Your task to perform on an android device: change the upload size in google photos Image 0: 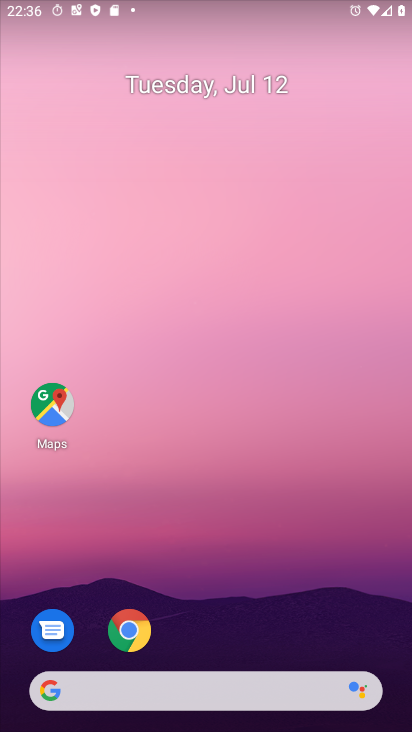
Step 0: drag from (228, 553) to (278, 10)
Your task to perform on an android device: change the upload size in google photos Image 1: 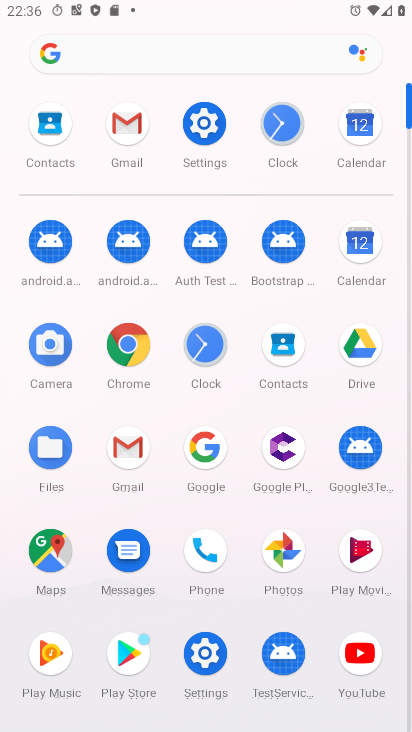
Step 1: click (282, 555)
Your task to perform on an android device: change the upload size in google photos Image 2: 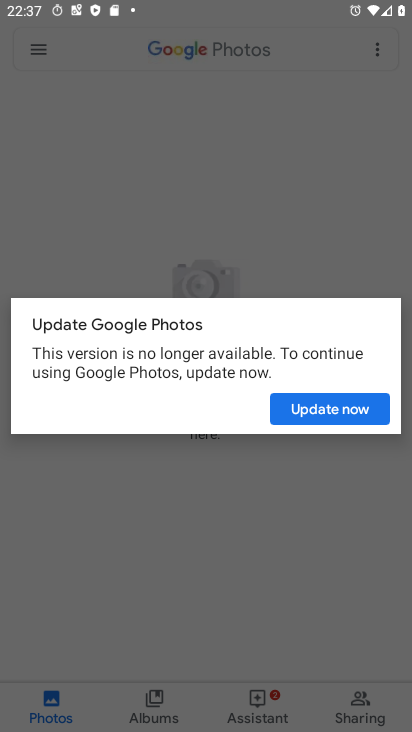
Step 2: click (302, 417)
Your task to perform on an android device: change the upload size in google photos Image 3: 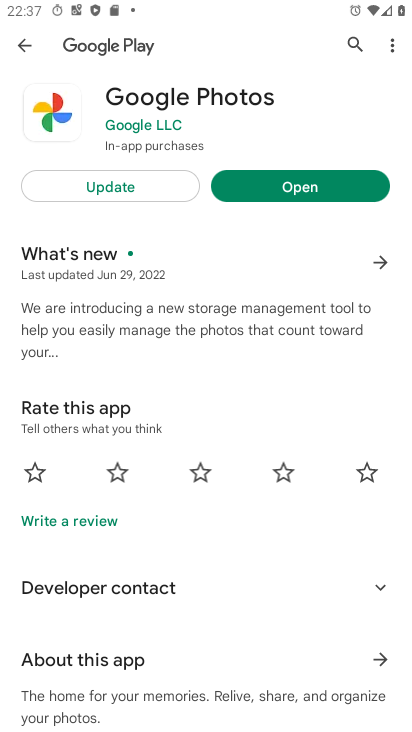
Step 3: click (292, 182)
Your task to perform on an android device: change the upload size in google photos Image 4: 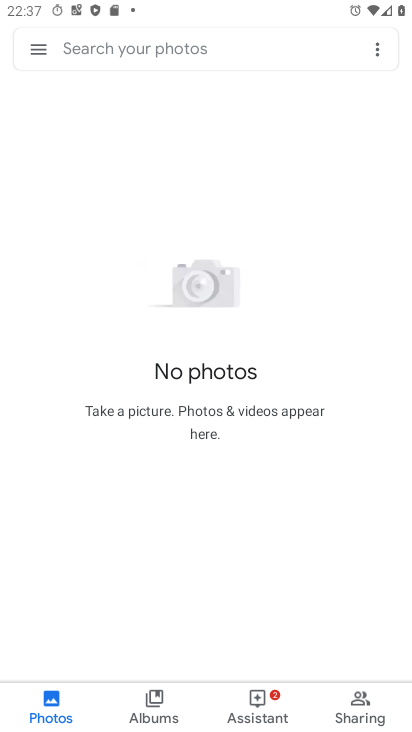
Step 4: click (43, 45)
Your task to perform on an android device: change the upload size in google photos Image 5: 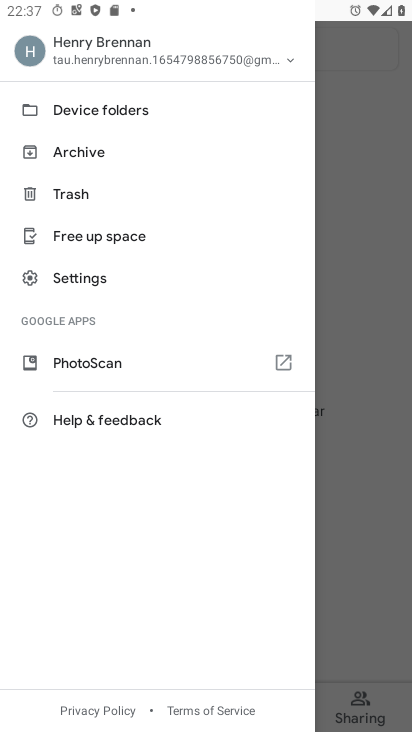
Step 5: click (91, 272)
Your task to perform on an android device: change the upload size in google photos Image 6: 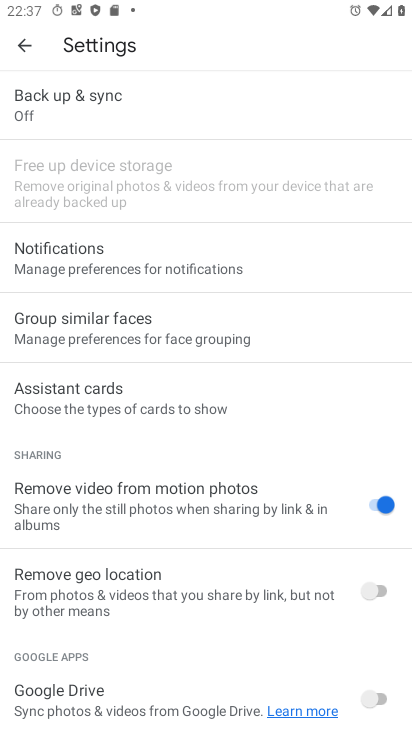
Step 6: click (114, 108)
Your task to perform on an android device: change the upload size in google photos Image 7: 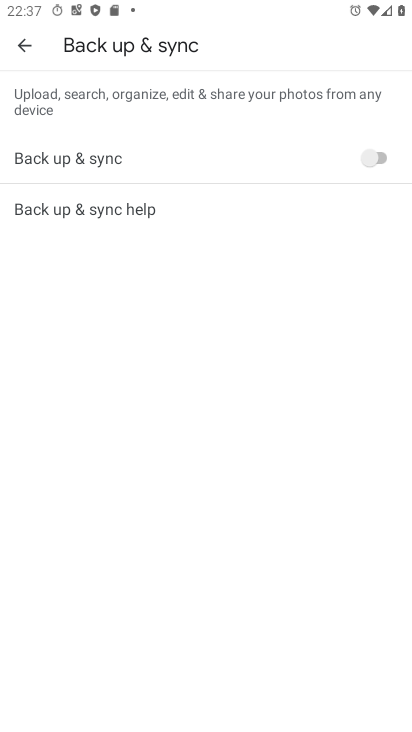
Step 7: click (10, 45)
Your task to perform on an android device: change the upload size in google photos Image 8: 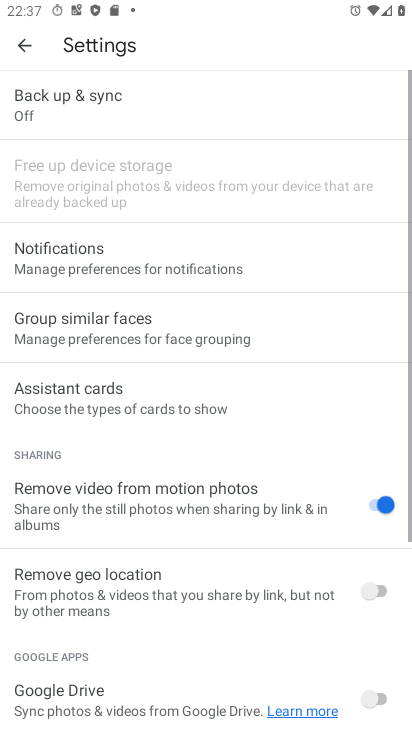
Step 8: click (10, 45)
Your task to perform on an android device: change the upload size in google photos Image 9: 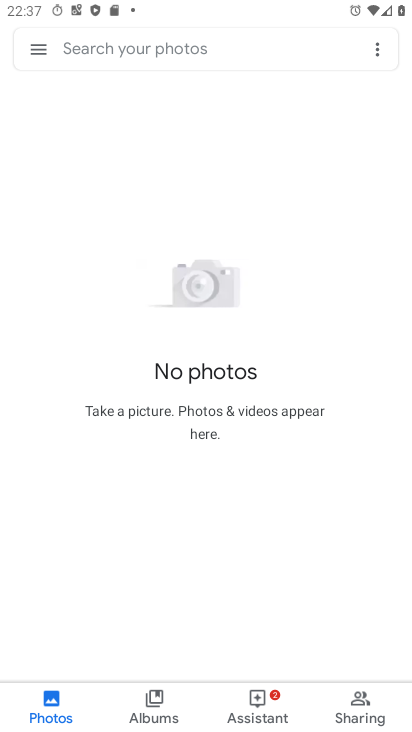
Step 9: click (35, 43)
Your task to perform on an android device: change the upload size in google photos Image 10: 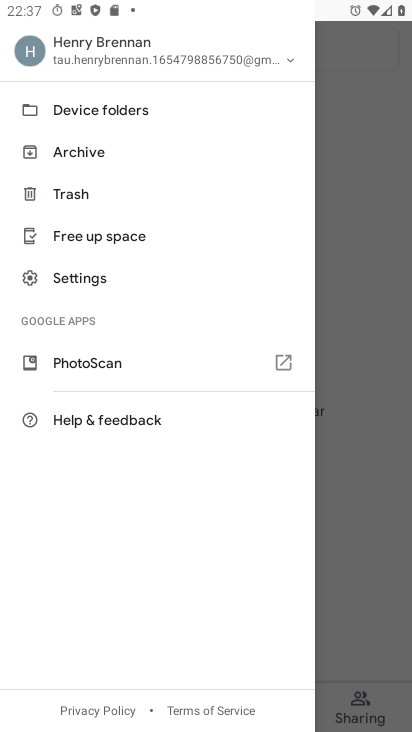
Step 10: click (88, 55)
Your task to perform on an android device: change the upload size in google photos Image 11: 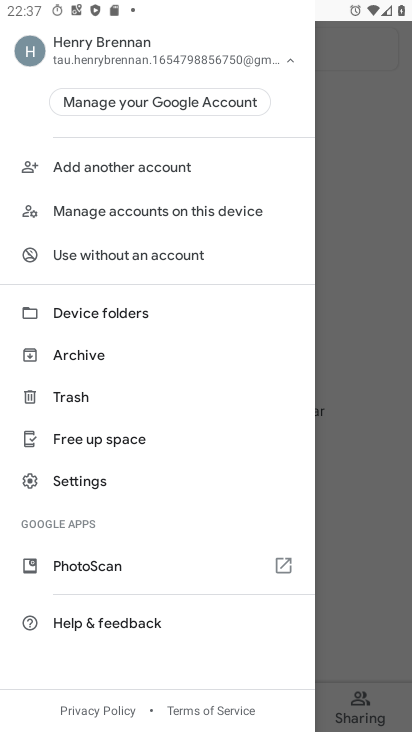
Step 11: click (90, 479)
Your task to perform on an android device: change the upload size in google photos Image 12: 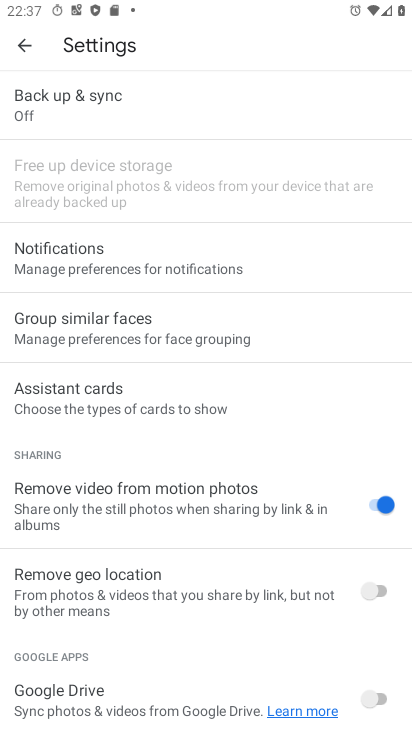
Step 12: task complete